Your task to perform on an android device: Search for sushi restaurants on Maps Image 0: 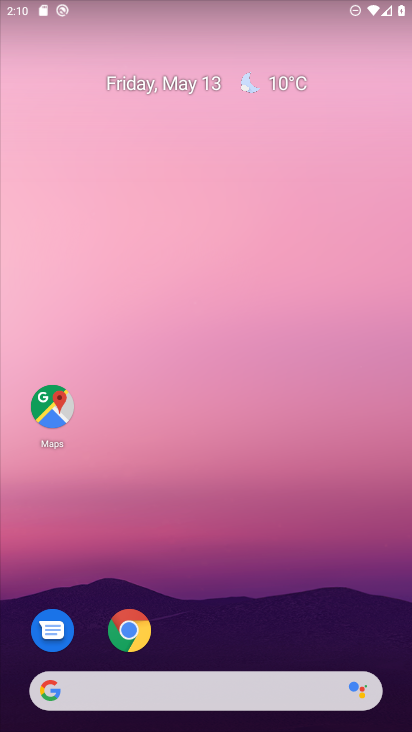
Step 0: drag from (218, 653) to (259, 163)
Your task to perform on an android device: Search for sushi restaurants on Maps Image 1: 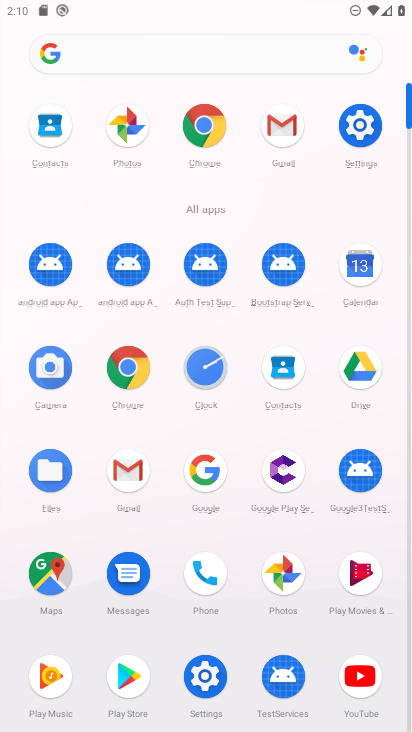
Step 1: click (48, 571)
Your task to perform on an android device: Search for sushi restaurants on Maps Image 2: 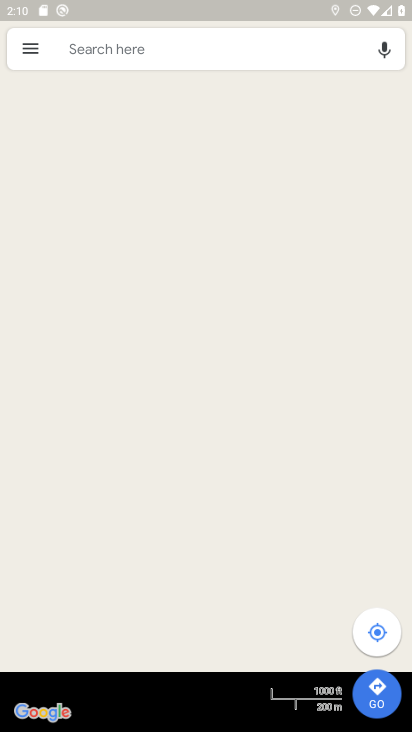
Step 2: click (126, 47)
Your task to perform on an android device: Search for sushi restaurants on Maps Image 3: 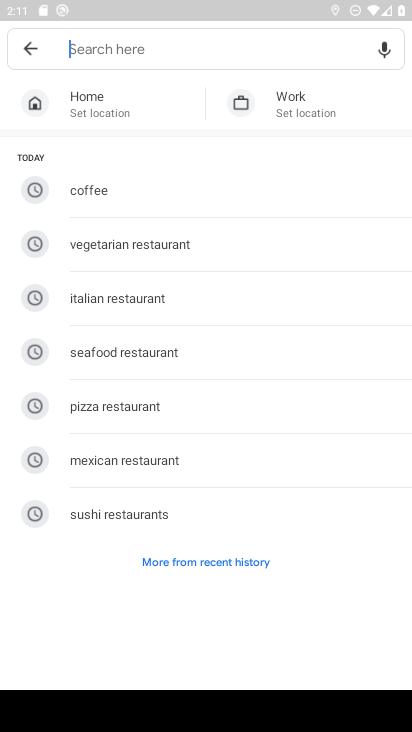
Step 3: click (105, 516)
Your task to perform on an android device: Search for sushi restaurants on Maps Image 4: 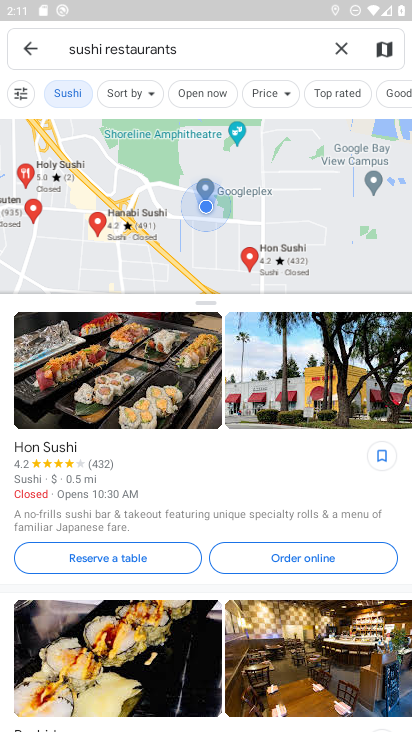
Step 4: task complete